Your task to perform on an android device: Show me productivity apps on the Play Store Image 0: 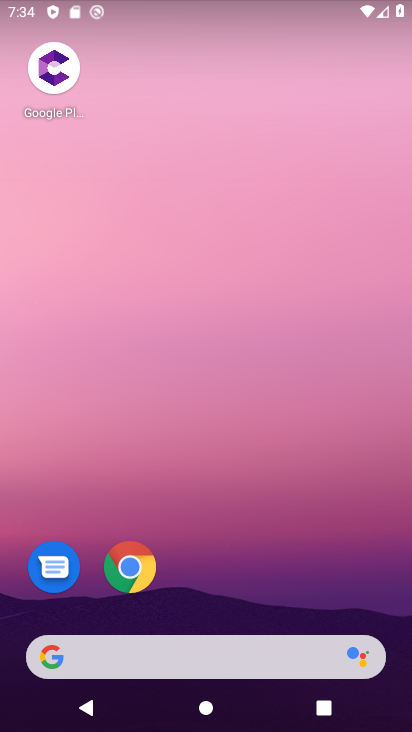
Step 0: drag from (210, 526) to (232, 1)
Your task to perform on an android device: Show me productivity apps on the Play Store Image 1: 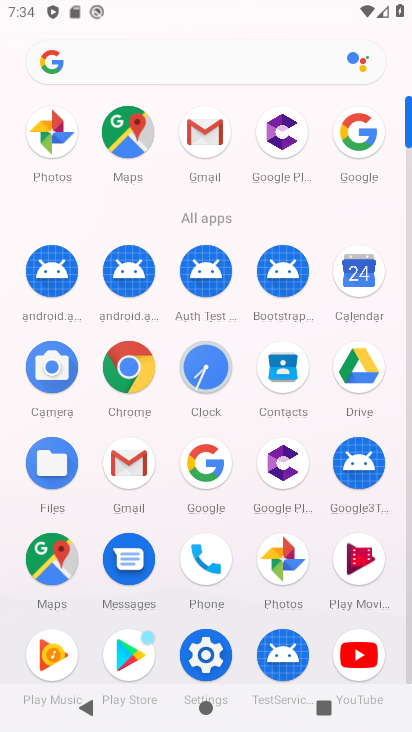
Step 1: drag from (171, 450) to (173, 207)
Your task to perform on an android device: Show me productivity apps on the Play Store Image 2: 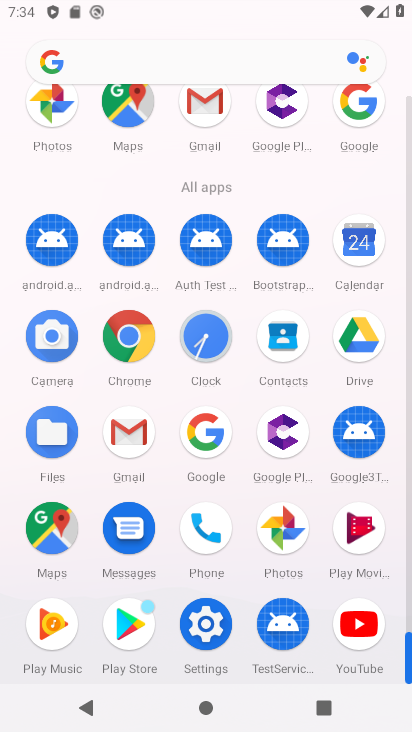
Step 2: click (129, 625)
Your task to perform on an android device: Show me productivity apps on the Play Store Image 3: 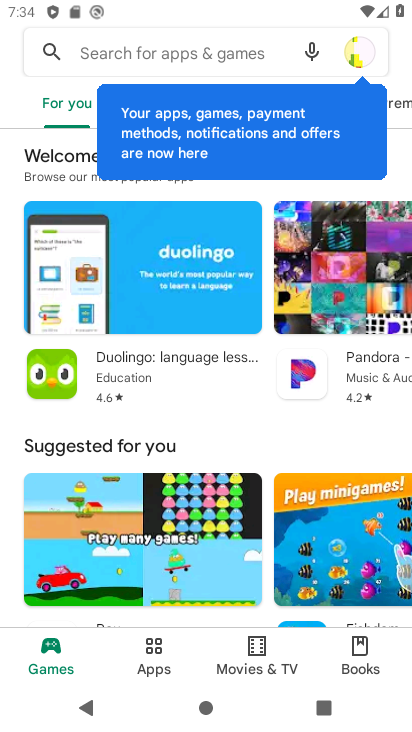
Step 3: click (162, 649)
Your task to perform on an android device: Show me productivity apps on the Play Store Image 4: 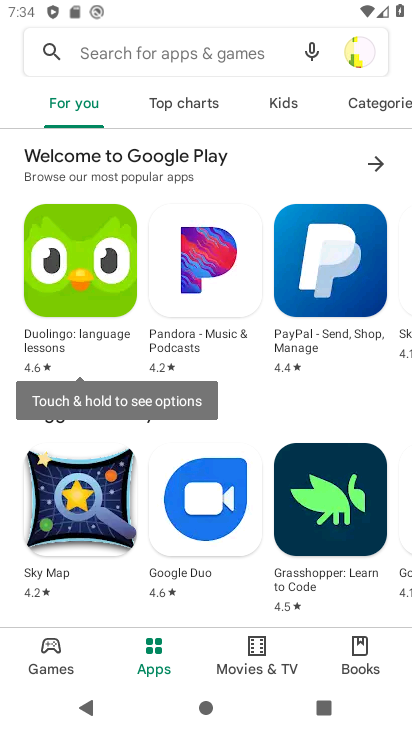
Step 4: click (370, 107)
Your task to perform on an android device: Show me productivity apps on the Play Store Image 5: 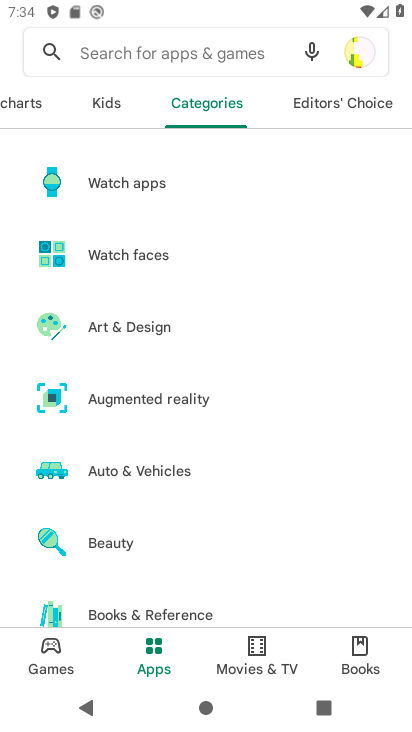
Step 5: drag from (188, 428) to (234, 341)
Your task to perform on an android device: Show me productivity apps on the Play Store Image 6: 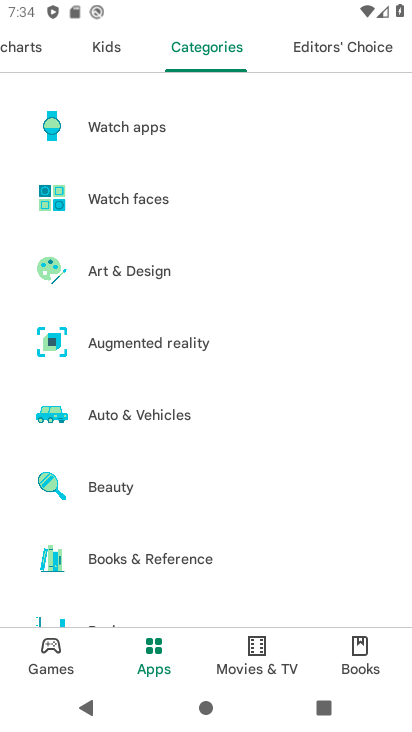
Step 6: drag from (170, 465) to (212, 376)
Your task to perform on an android device: Show me productivity apps on the Play Store Image 7: 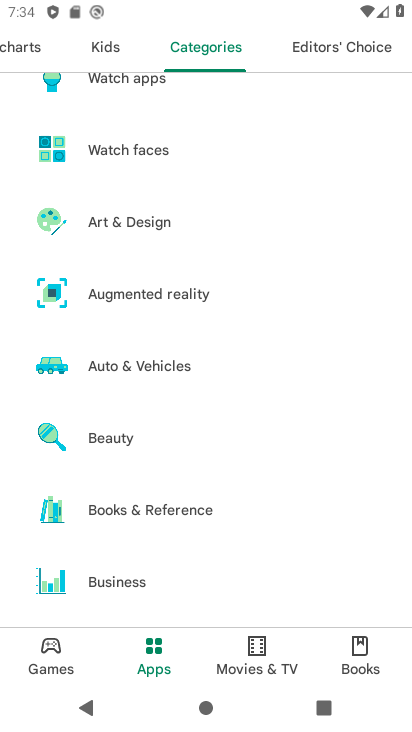
Step 7: drag from (162, 467) to (200, 384)
Your task to perform on an android device: Show me productivity apps on the Play Store Image 8: 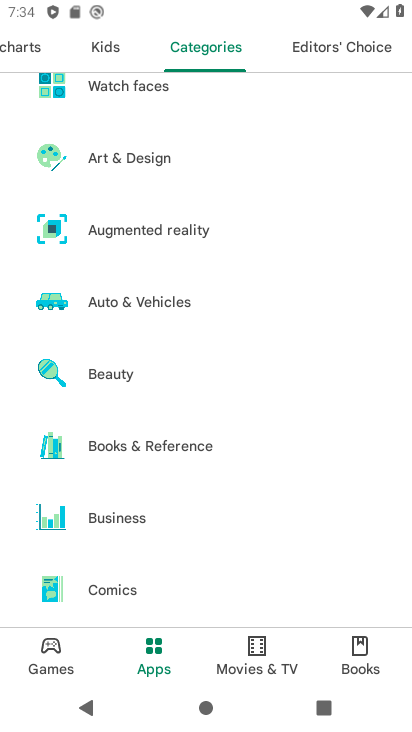
Step 8: drag from (169, 472) to (217, 385)
Your task to perform on an android device: Show me productivity apps on the Play Store Image 9: 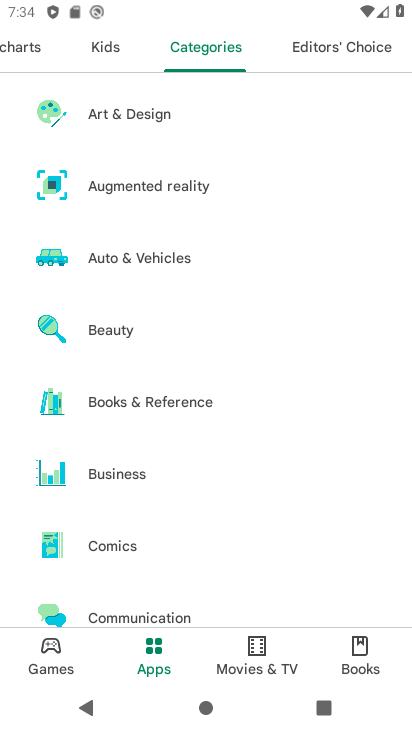
Step 9: drag from (173, 453) to (233, 367)
Your task to perform on an android device: Show me productivity apps on the Play Store Image 10: 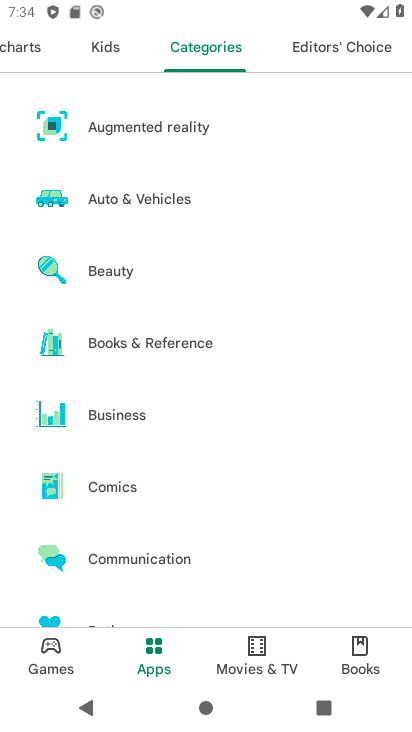
Step 10: drag from (152, 471) to (209, 395)
Your task to perform on an android device: Show me productivity apps on the Play Store Image 11: 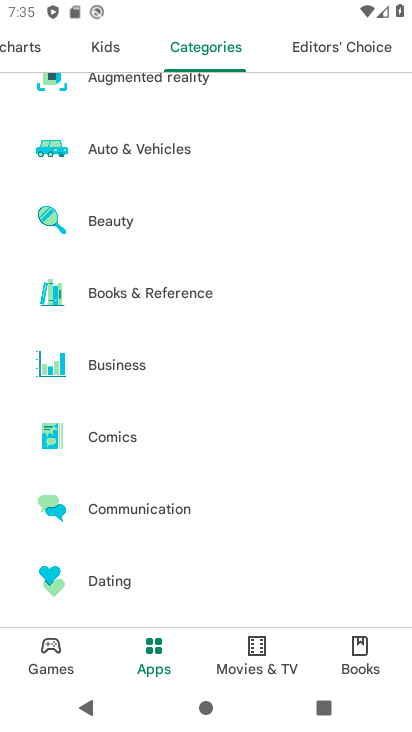
Step 11: drag from (148, 480) to (222, 388)
Your task to perform on an android device: Show me productivity apps on the Play Store Image 12: 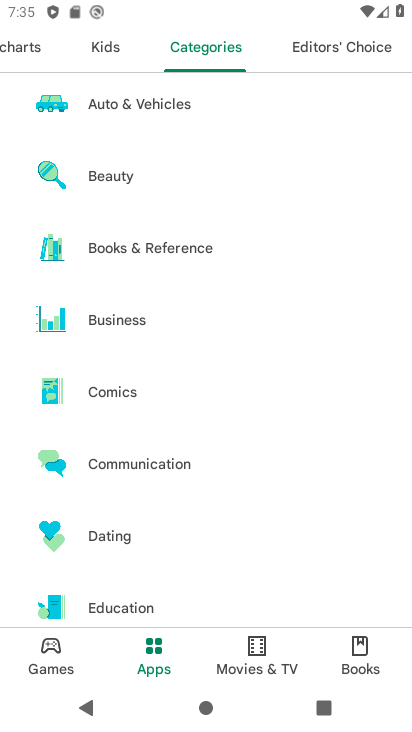
Step 12: drag from (171, 512) to (237, 421)
Your task to perform on an android device: Show me productivity apps on the Play Store Image 13: 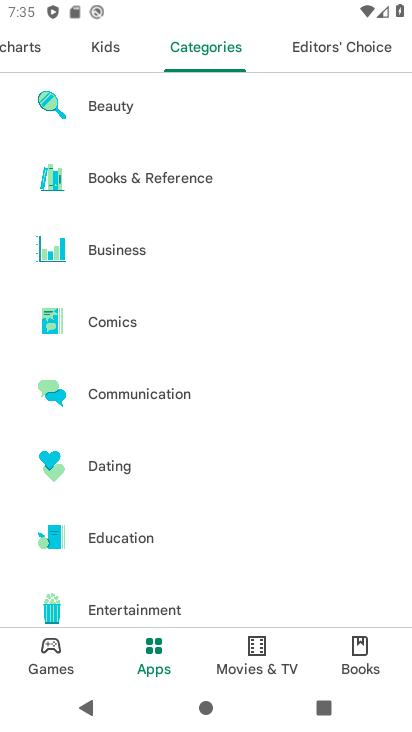
Step 13: drag from (186, 512) to (260, 418)
Your task to perform on an android device: Show me productivity apps on the Play Store Image 14: 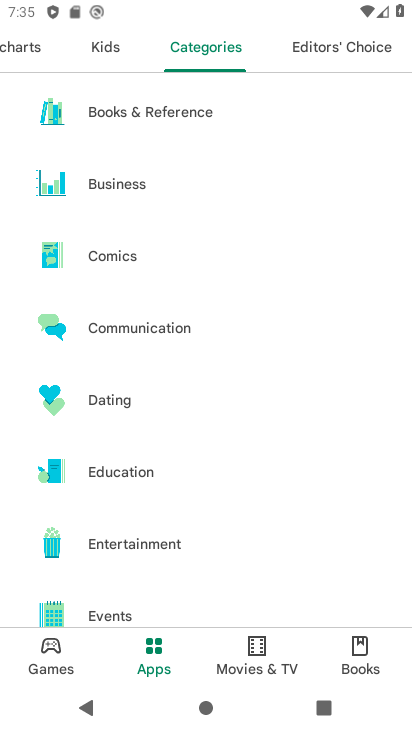
Step 14: drag from (197, 505) to (249, 422)
Your task to perform on an android device: Show me productivity apps on the Play Store Image 15: 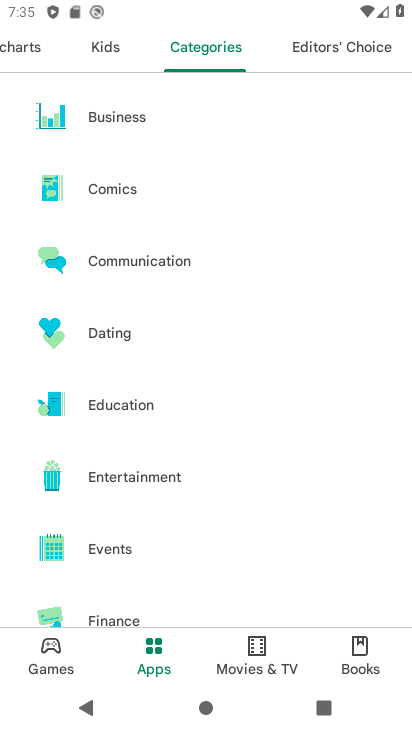
Step 15: drag from (172, 515) to (245, 426)
Your task to perform on an android device: Show me productivity apps on the Play Store Image 16: 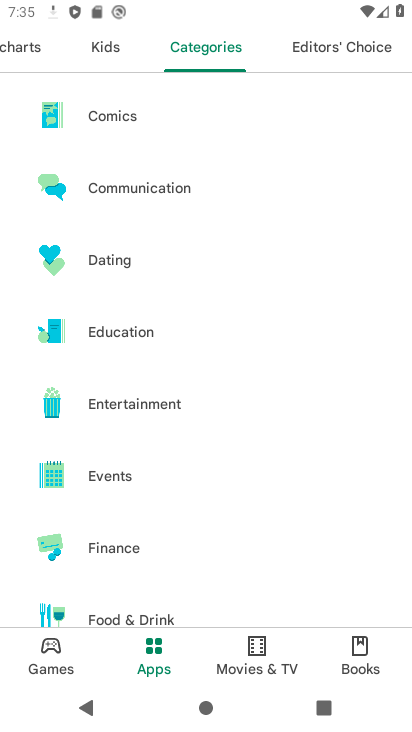
Step 16: drag from (156, 524) to (231, 432)
Your task to perform on an android device: Show me productivity apps on the Play Store Image 17: 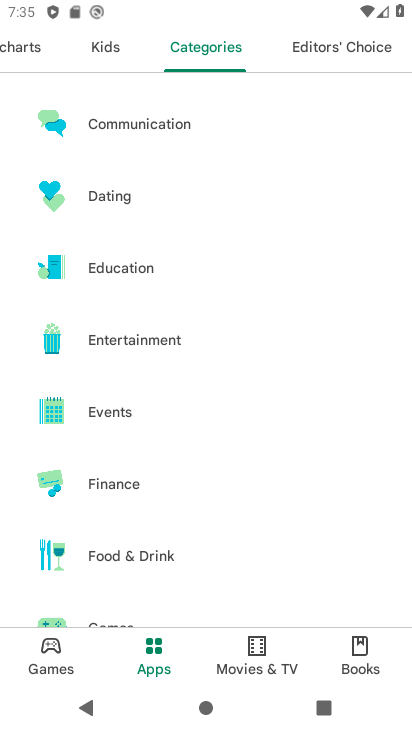
Step 17: drag from (176, 519) to (243, 416)
Your task to perform on an android device: Show me productivity apps on the Play Store Image 18: 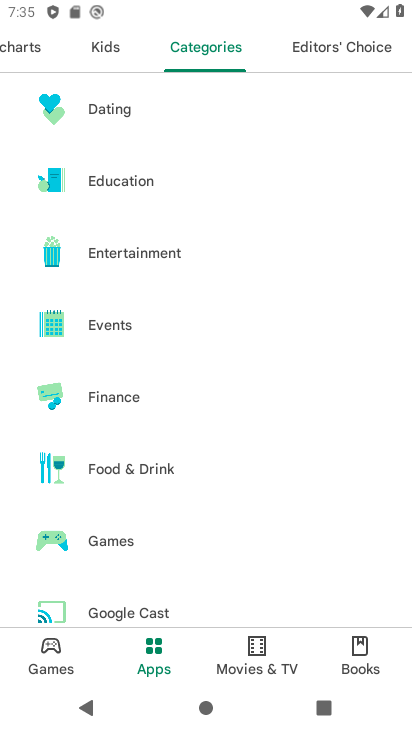
Step 18: drag from (171, 499) to (242, 409)
Your task to perform on an android device: Show me productivity apps on the Play Store Image 19: 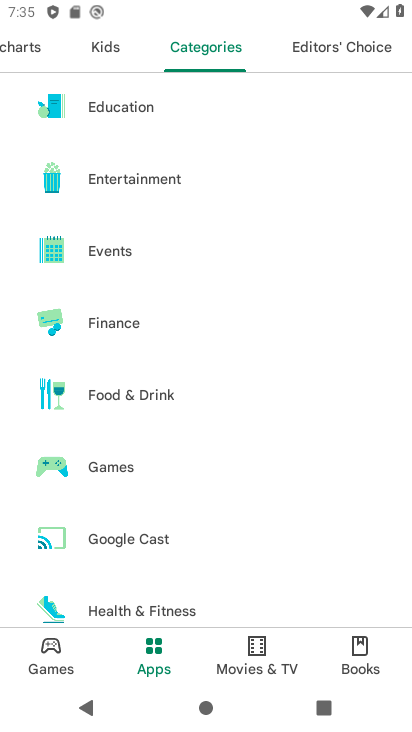
Step 19: drag from (168, 487) to (257, 386)
Your task to perform on an android device: Show me productivity apps on the Play Store Image 20: 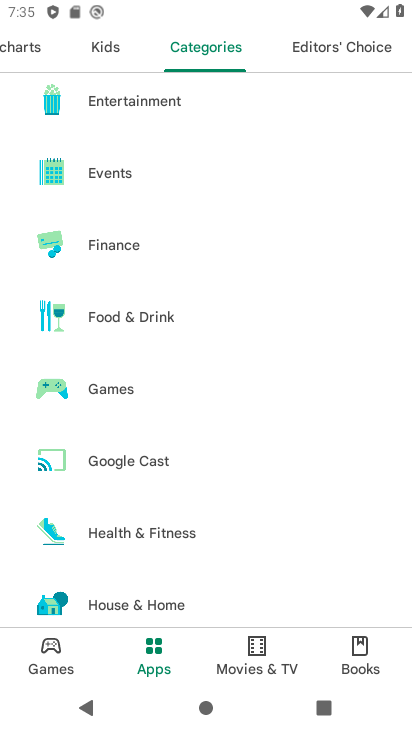
Step 20: drag from (170, 503) to (270, 396)
Your task to perform on an android device: Show me productivity apps on the Play Store Image 21: 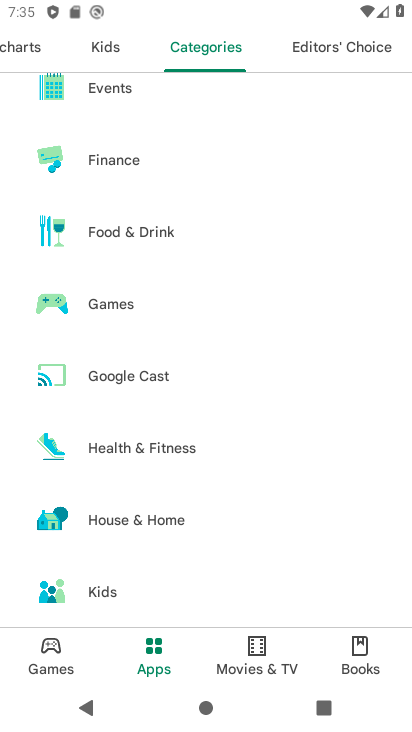
Step 21: drag from (163, 542) to (212, 430)
Your task to perform on an android device: Show me productivity apps on the Play Store Image 22: 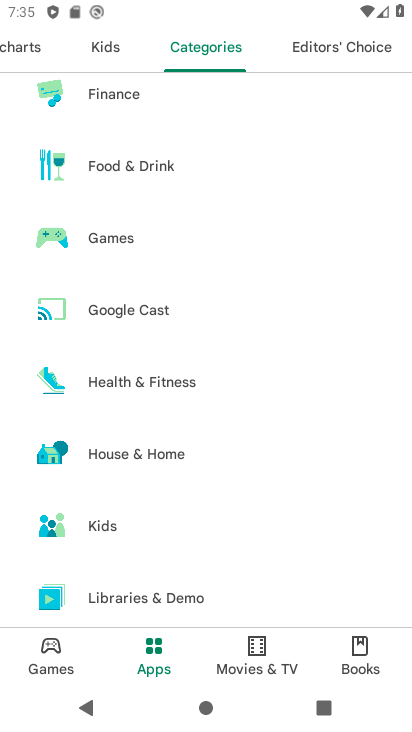
Step 22: drag from (161, 516) to (228, 424)
Your task to perform on an android device: Show me productivity apps on the Play Store Image 23: 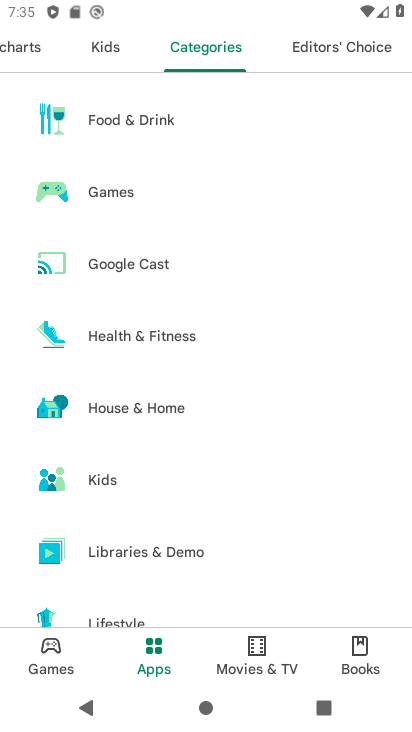
Step 23: drag from (174, 494) to (239, 403)
Your task to perform on an android device: Show me productivity apps on the Play Store Image 24: 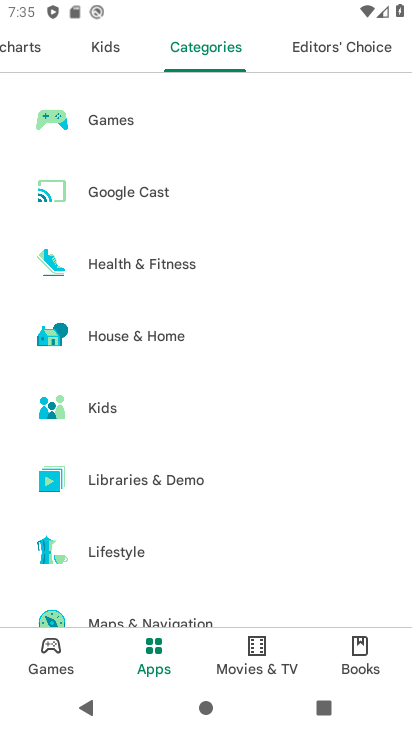
Step 24: drag from (185, 514) to (275, 413)
Your task to perform on an android device: Show me productivity apps on the Play Store Image 25: 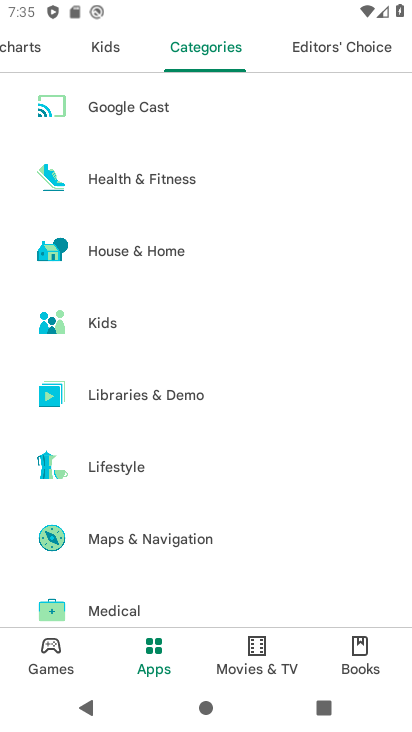
Step 25: drag from (183, 500) to (272, 402)
Your task to perform on an android device: Show me productivity apps on the Play Store Image 26: 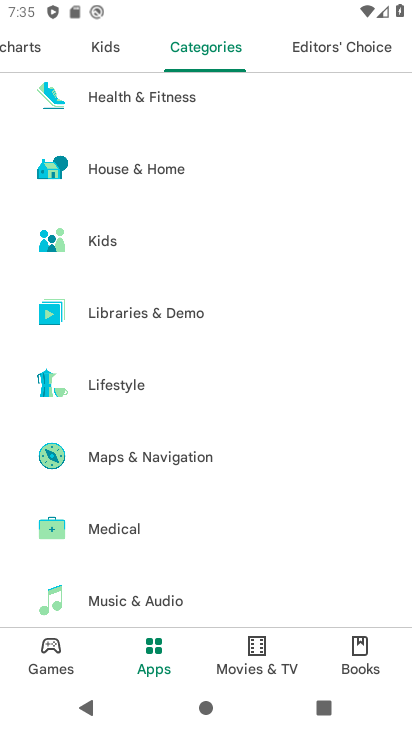
Step 26: drag from (173, 503) to (226, 410)
Your task to perform on an android device: Show me productivity apps on the Play Store Image 27: 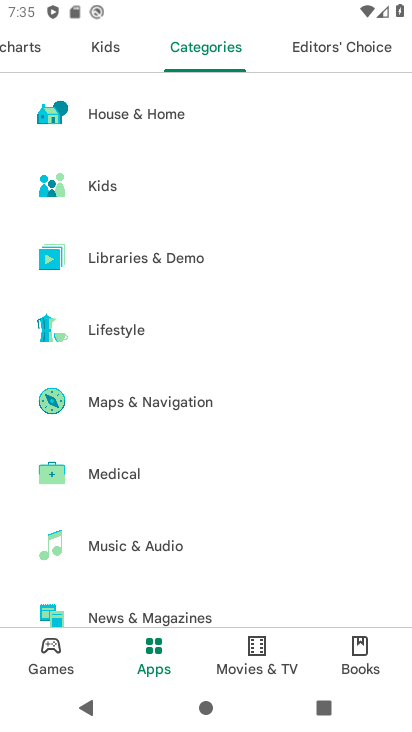
Step 27: drag from (147, 513) to (217, 414)
Your task to perform on an android device: Show me productivity apps on the Play Store Image 28: 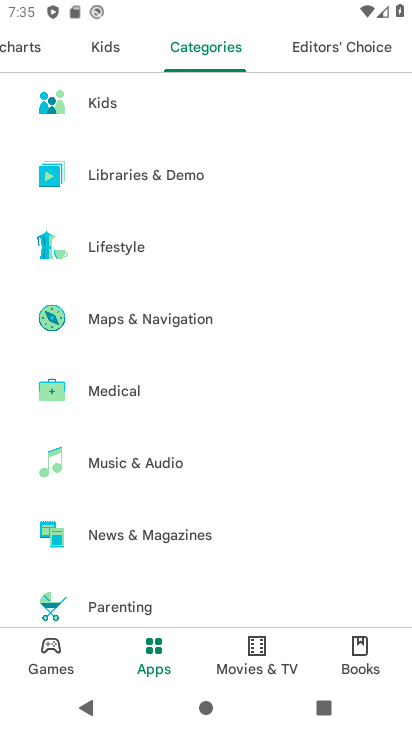
Step 28: drag from (182, 518) to (233, 420)
Your task to perform on an android device: Show me productivity apps on the Play Store Image 29: 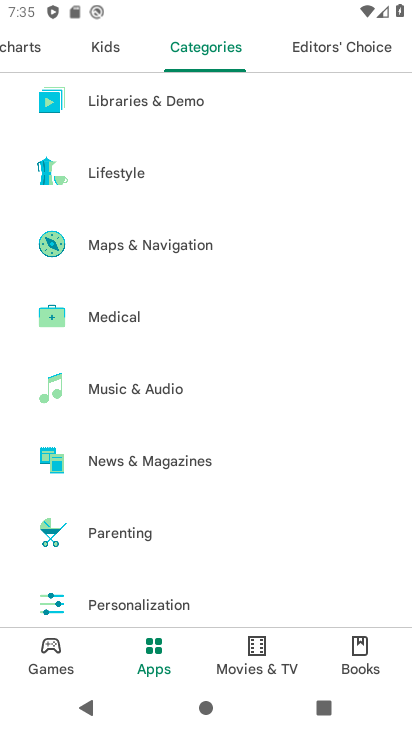
Step 29: drag from (150, 518) to (238, 416)
Your task to perform on an android device: Show me productivity apps on the Play Store Image 30: 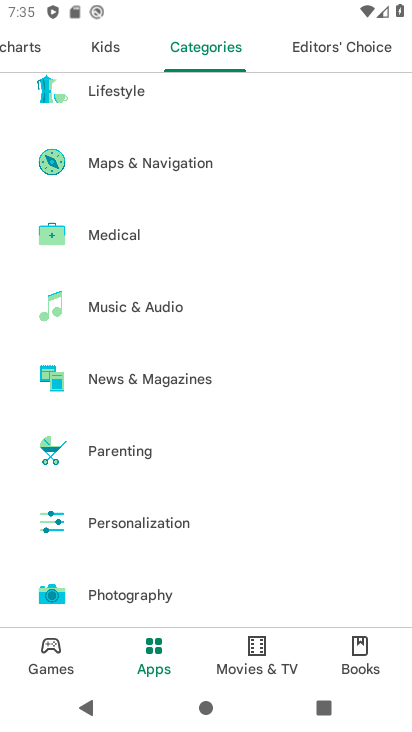
Step 30: drag from (146, 506) to (267, 374)
Your task to perform on an android device: Show me productivity apps on the Play Store Image 31: 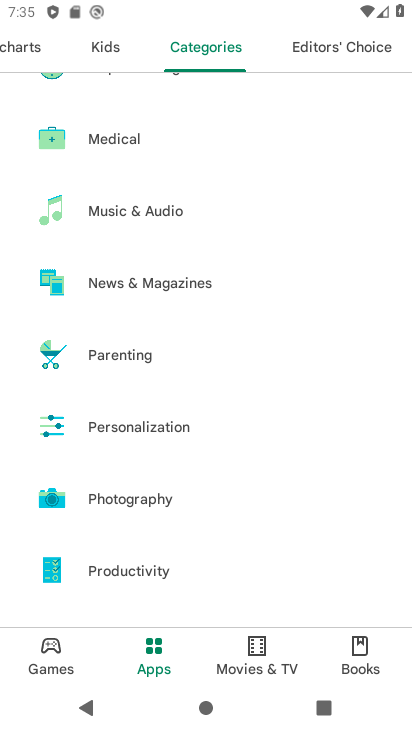
Step 31: drag from (142, 530) to (214, 427)
Your task to perform on an android device: Show me productivity apps on the Play Store Image 32: 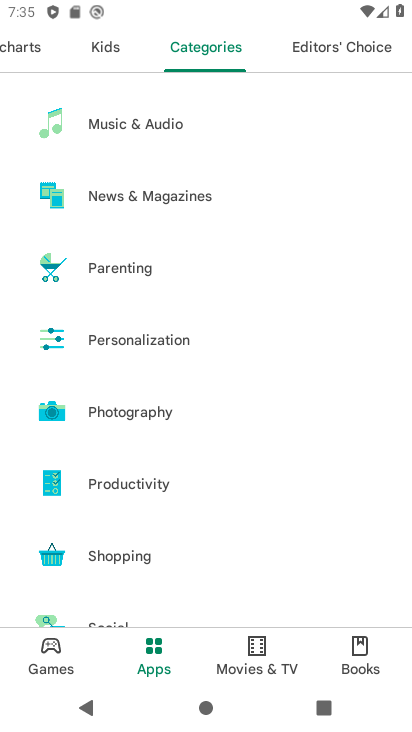
Step 32: click (159, 486)
Your task to perform on an android device: Show me productivity apps on the Play Store Image 33: 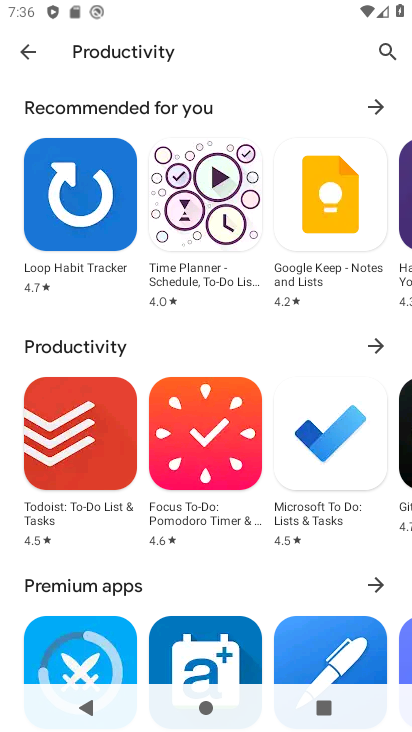
Step 33: task complete